Your task to perform on an android device: Go to Amazon Image 0: 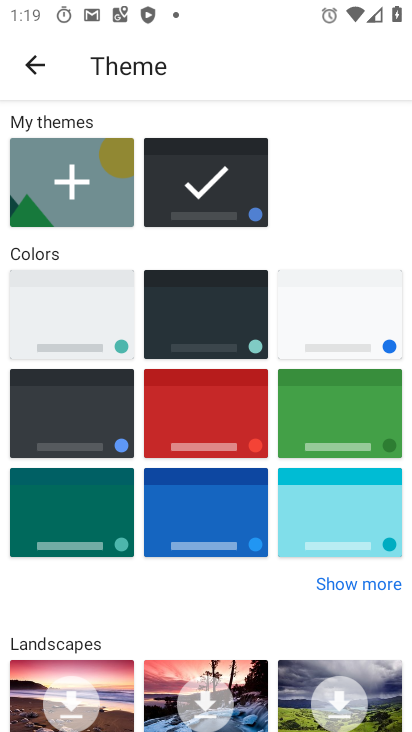
Step 0: press home button
Your task to perform on an android device: Go to Amazon Image 1: 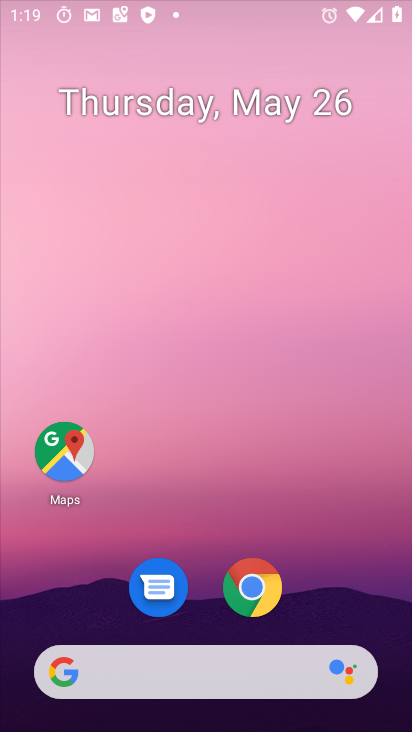
Step 1: drag from (211, 649) to (281, 111)
Your task to perform on an android device: Go to Amazon Image 2: 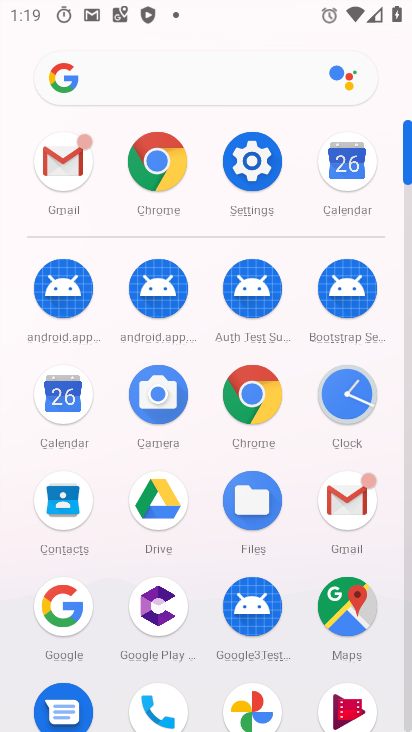
Step 2: click (171, 180)
Your task to perform on an android device: Go to Amazon Image 3: 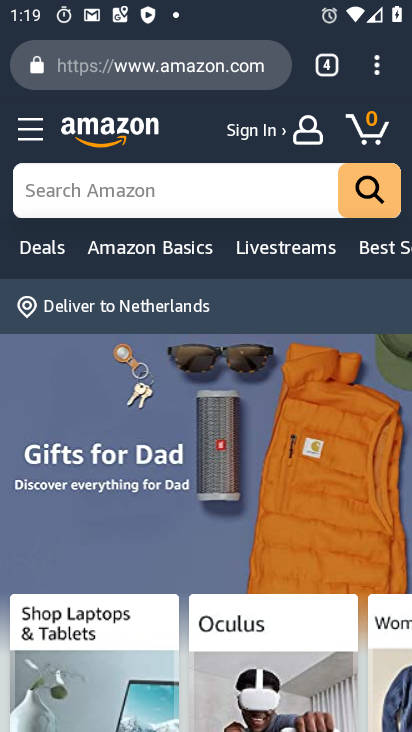
Step 3: click (382, 91)
Your task to perform on an android device: Go to Amazon Image 4: 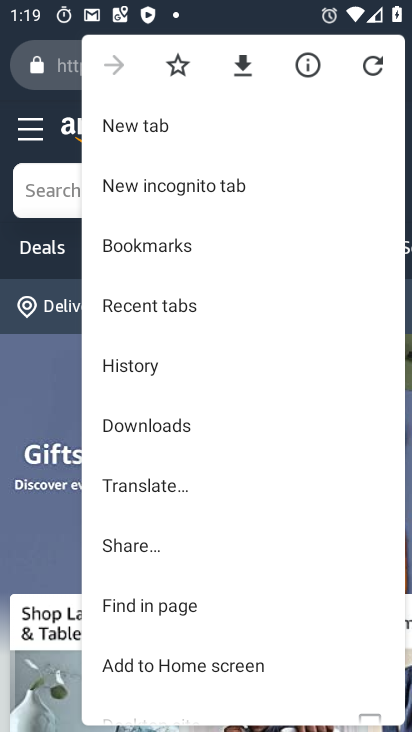
Step 4: click (151, 142)
Your task to perform on an android device: Go to Amazon Image 5: 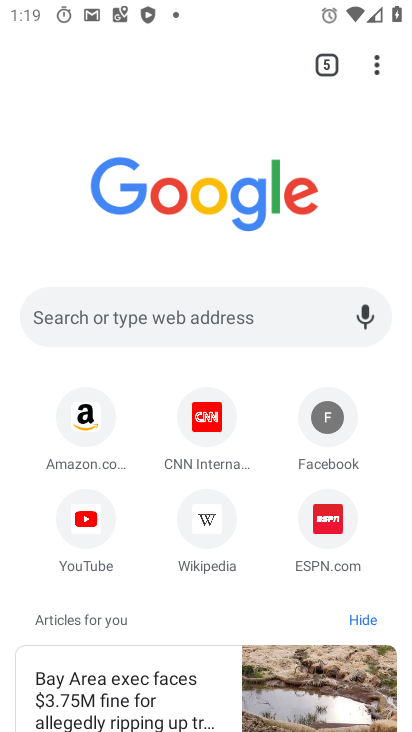
Step 5: click (91, 417)
Your task to perform on an android device: Go to Amazon Image 6: 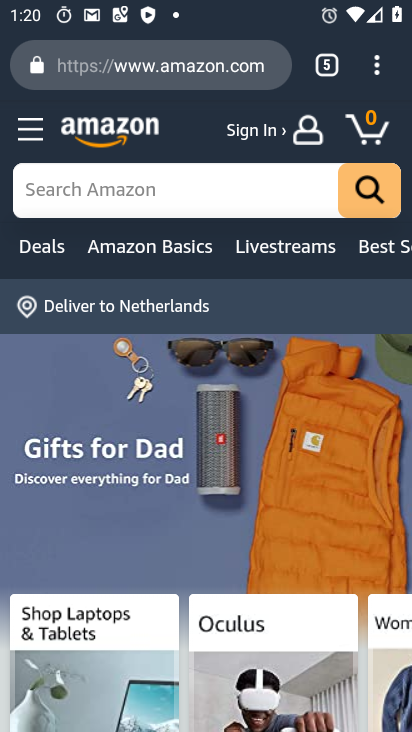
Step 6: task complete